Your task to perform on an android device: open app "Facebook Lite" (install if not already installed) Image 0: 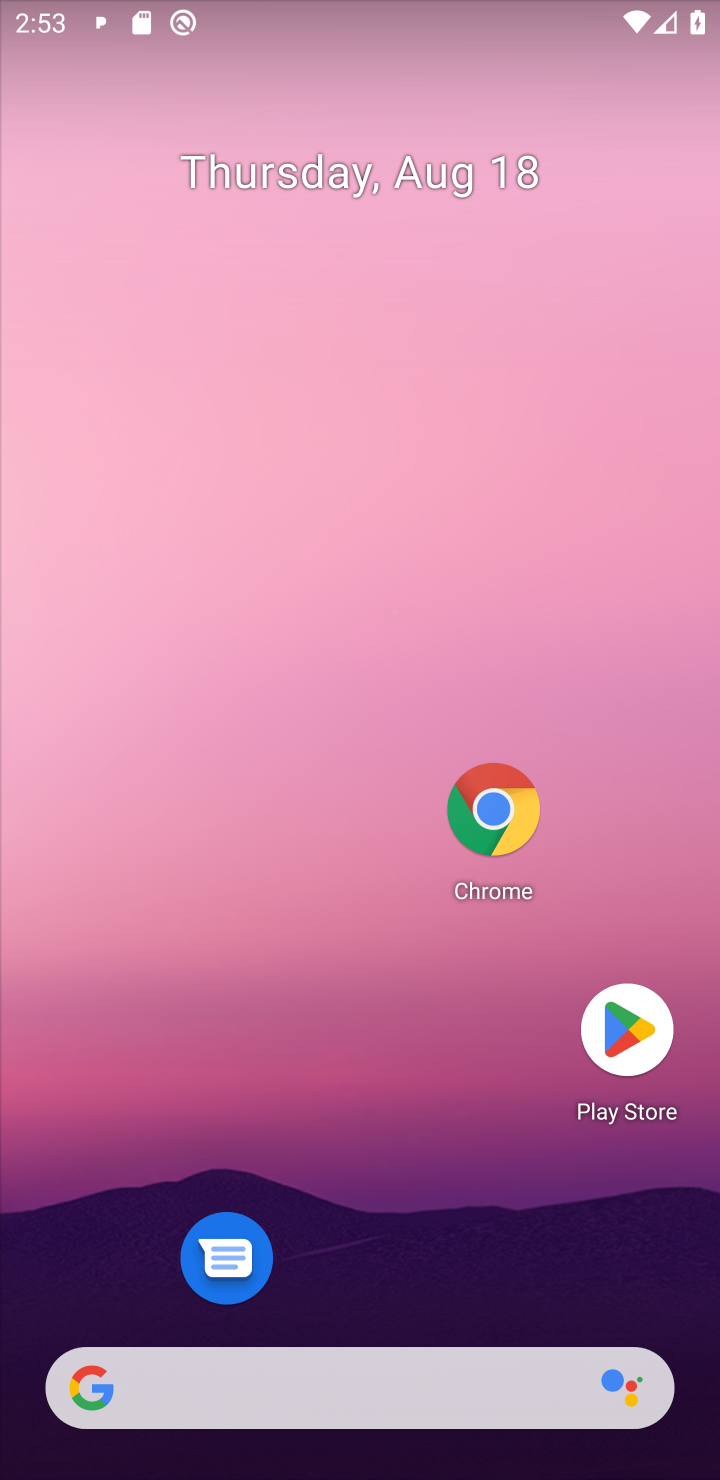
Step 0: drag from (297, 1305) to (288, 491)
Your task to perform on an android device: open app "Facebook Lite" (install if not already installed) Image 1: 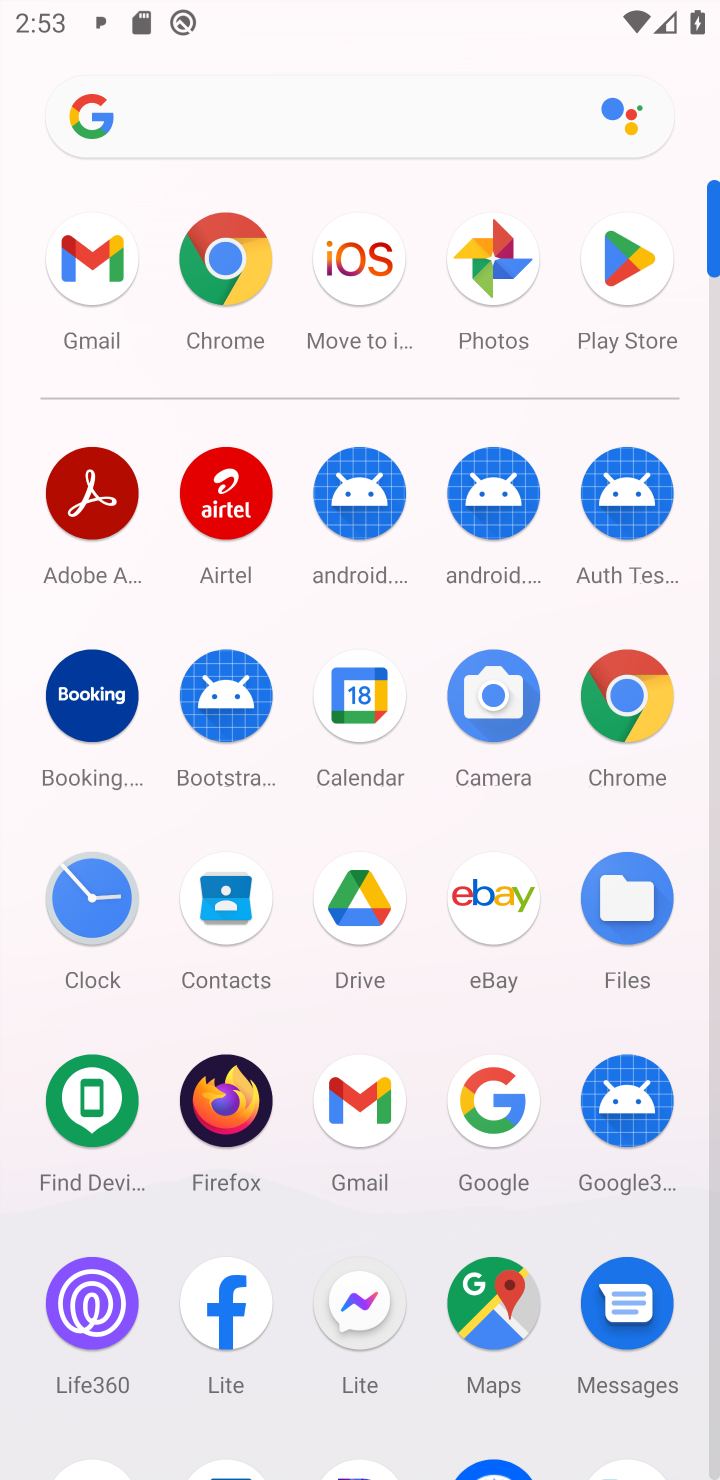
Step 1: click (632, 241)
Your task to perform on an android device: open app "Facebook Lite" (install if not already installed) Image 2: 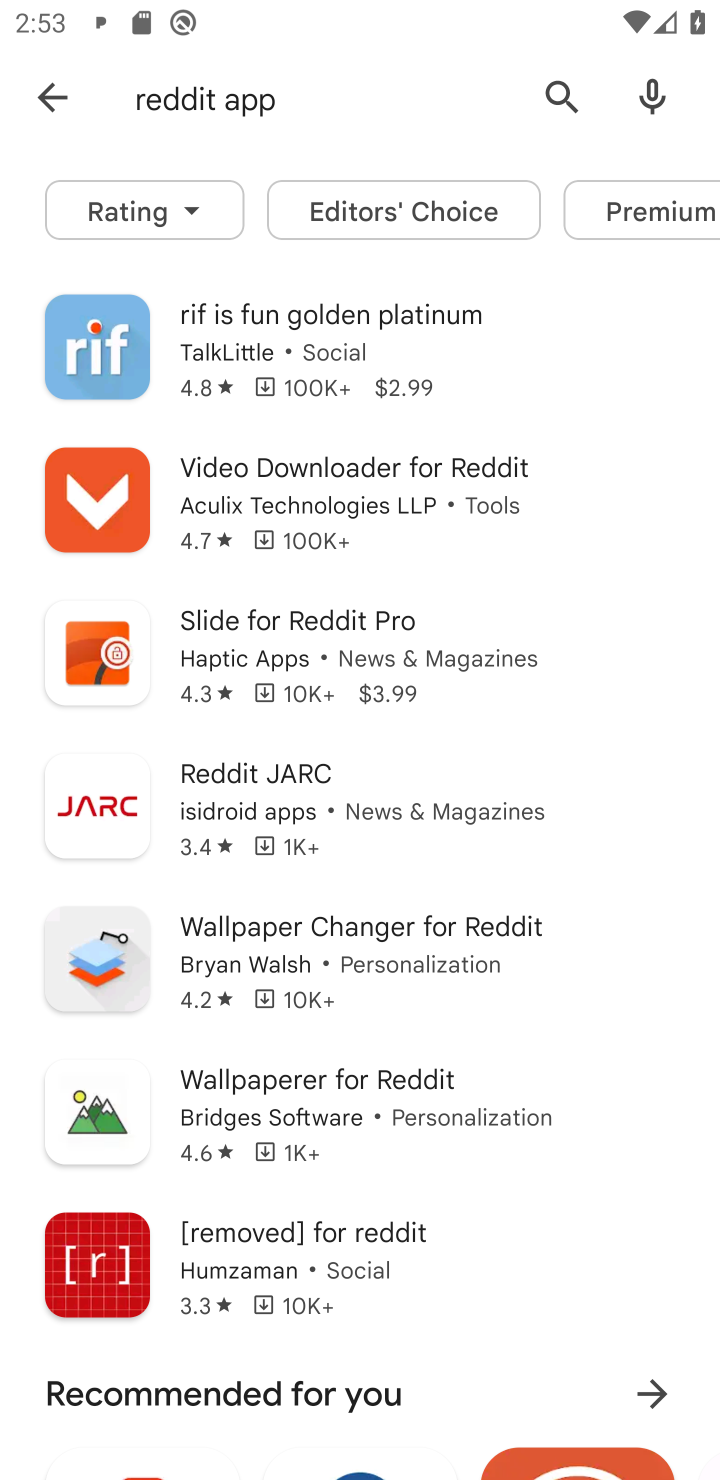
Step 2: click (55, 93)
Your task to perform on an android device: open app "Facebook Lite" (install if not already installed) Image 3: 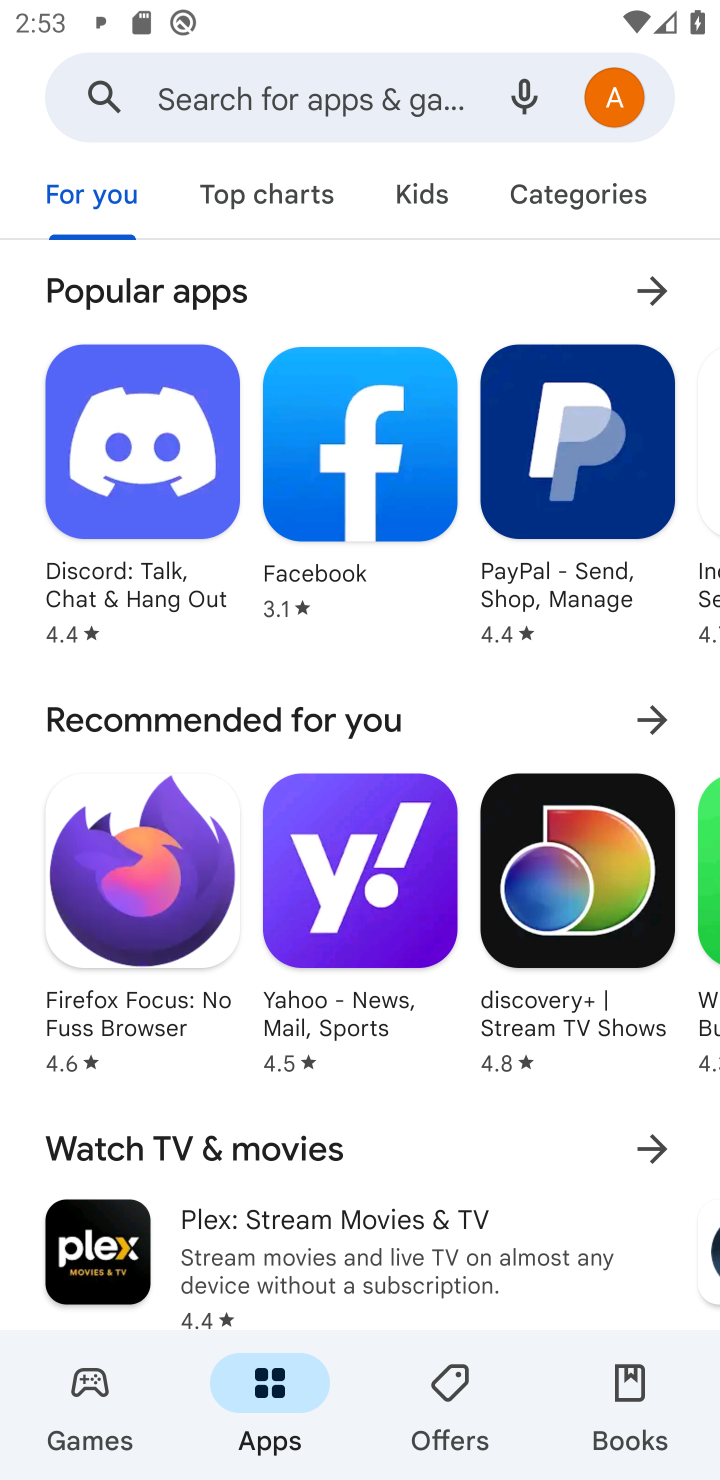
Step 3: click (361, 75)
Your task to perform on an android device: open app "Facebook Lite" (install if not already installed) Image 4: 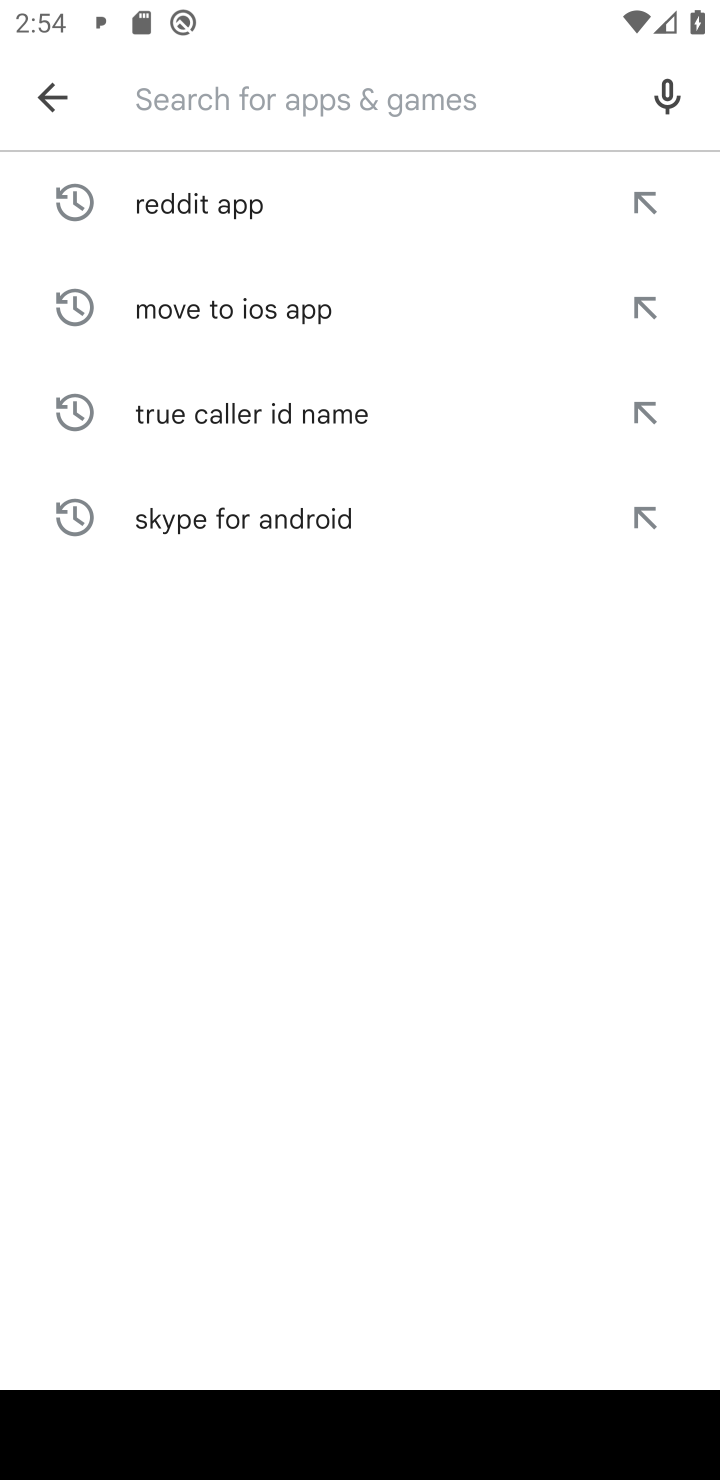
Step 4: type "facebooklite "
Your task to perform on an android device: open app "Facebook Lite" (install if not already installed) Image 5: 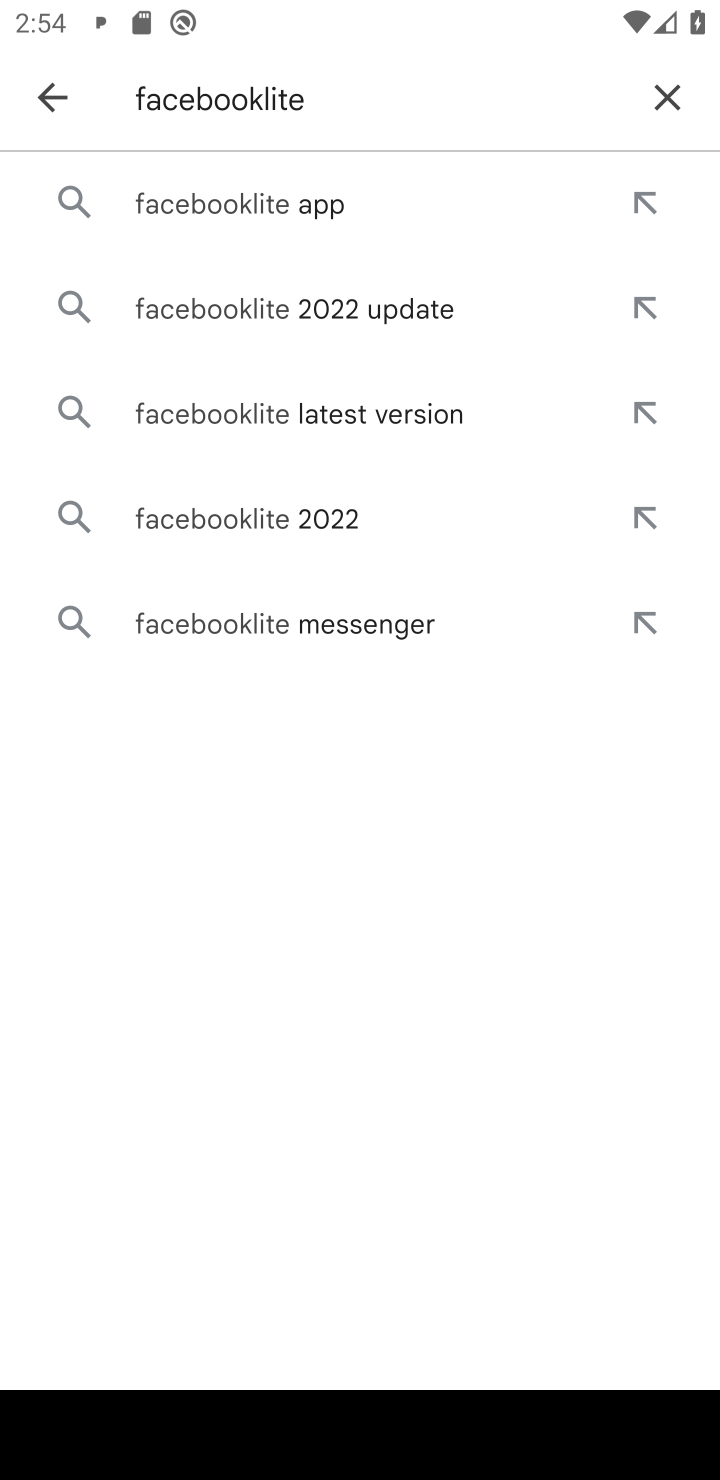
Step 5: click (345, 192)
Your task to perform on an android device: open app "Facebook Lite" (install if not already installed) Image 6: 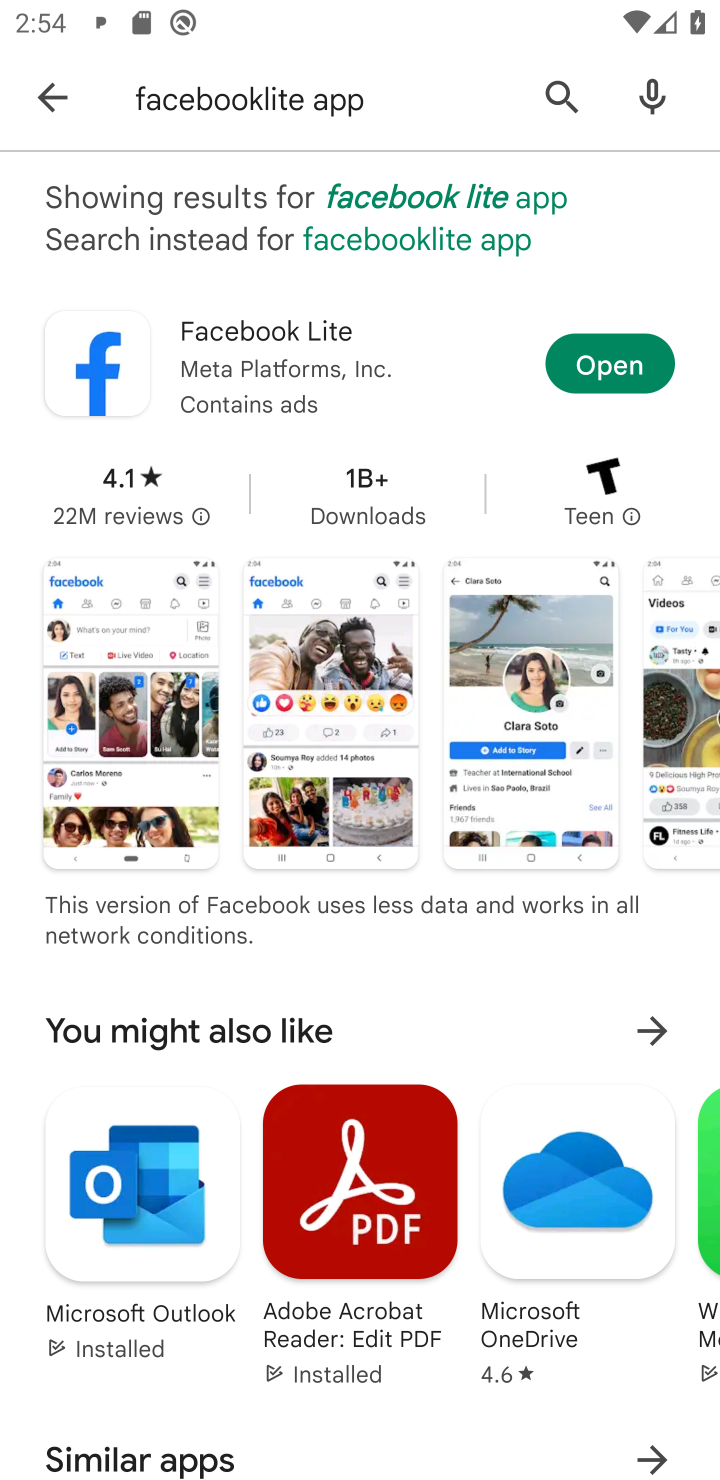
Step 6: click (601, 363)
Your task to perform on an android device: open app "Facebook Lite" (install if not already installed) Image 7: 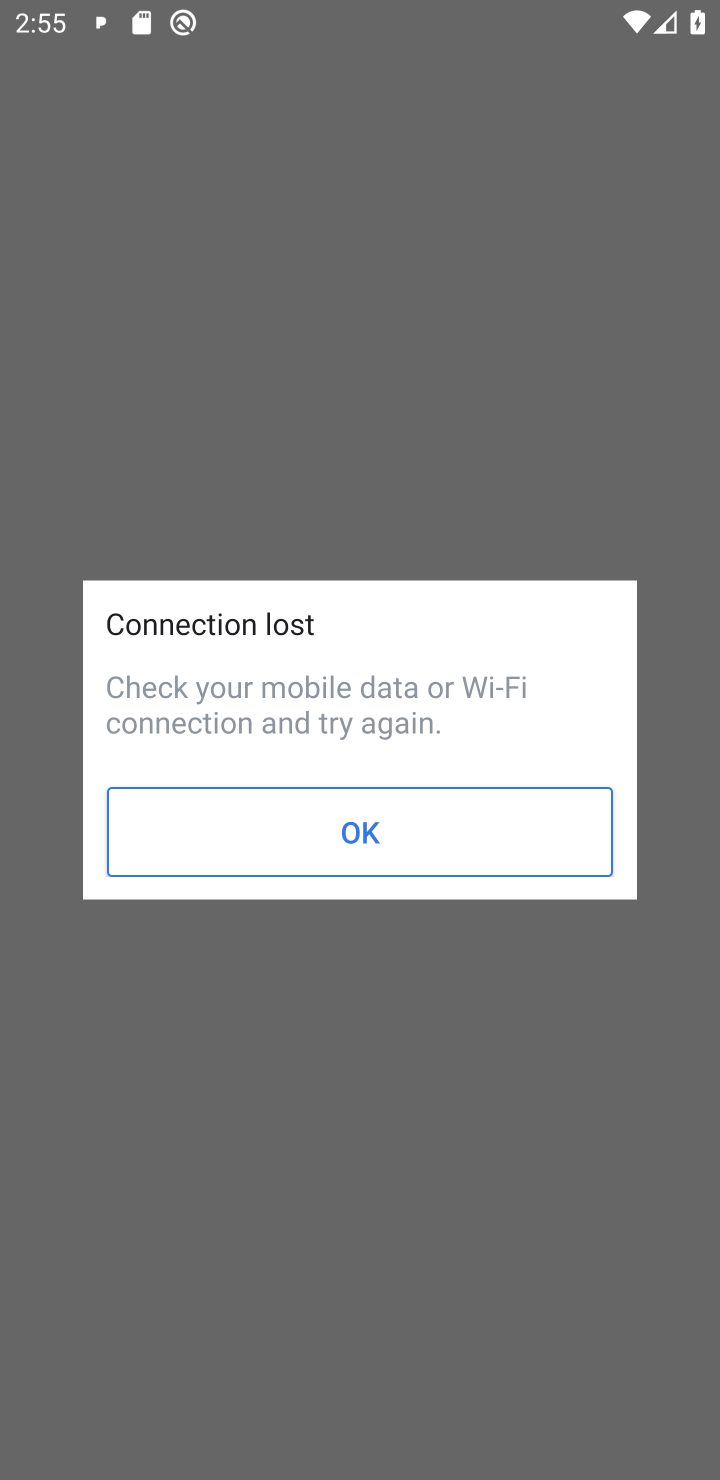
Step 7: task complete